Your task to perform on an android device: change keyboard looks Image 0: 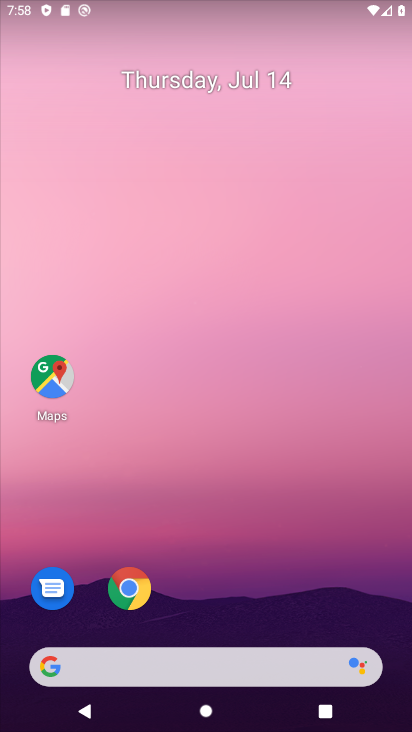
Step 0: drag from (223, 632) to (192, 35)
Your task to perform on an android device: change keyboard looks Image 1: 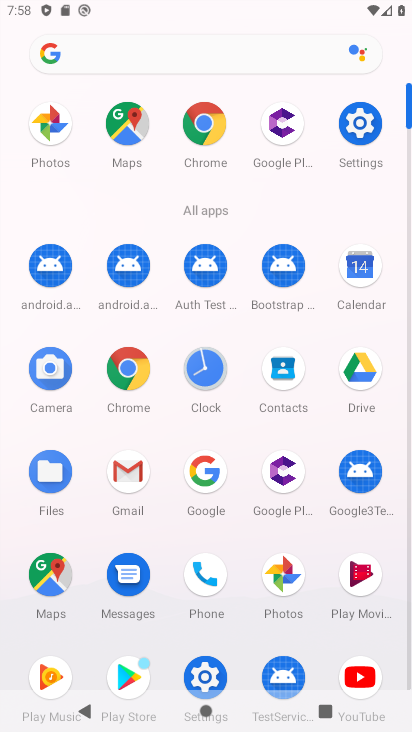
Step 1: click (207, 668)
Your task to perform on an android device: change keyboard looks Image 2: 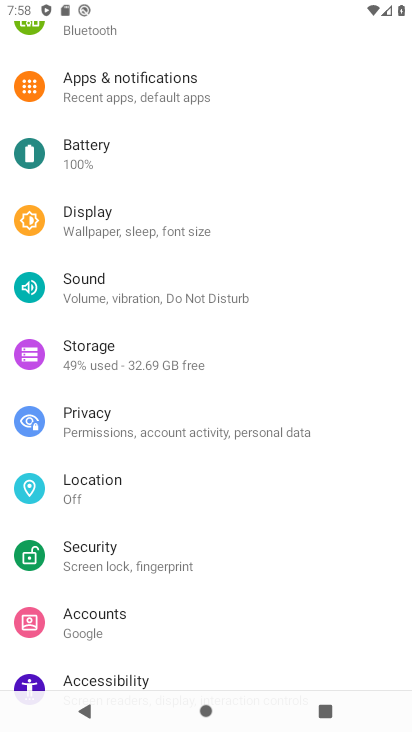
Step 2: drag from (131, 555) to (196, 179)
Your task to perform on an android device: change keyboard looks Image 3: 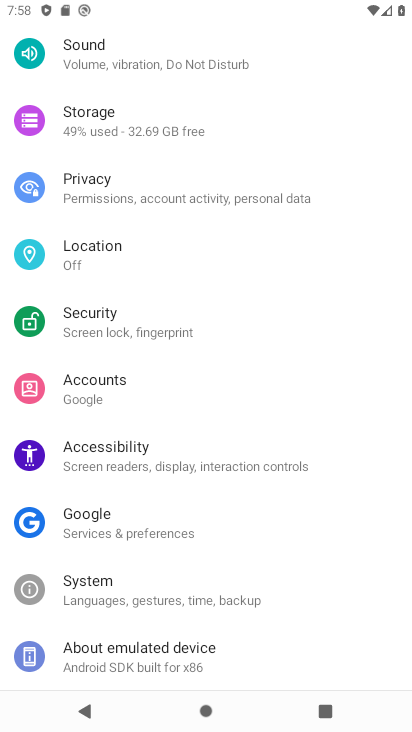
Step 3: click (145, 597)
Your task to perform on an android device: change keyboard looks Image 4: 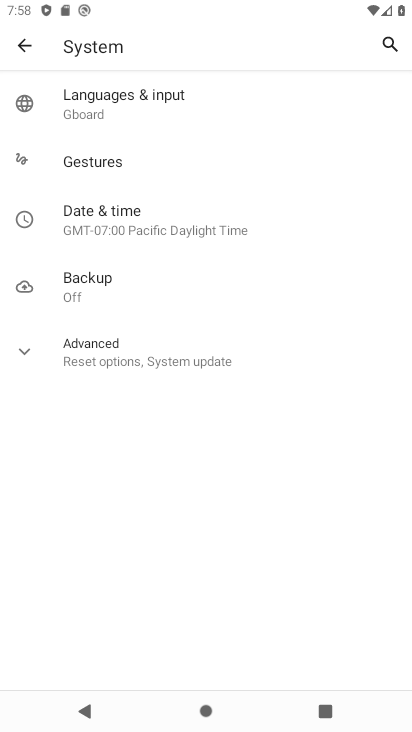
Step 4: click (138, 100)
Your task to perform on an android device: change keyboard looks Image 5: 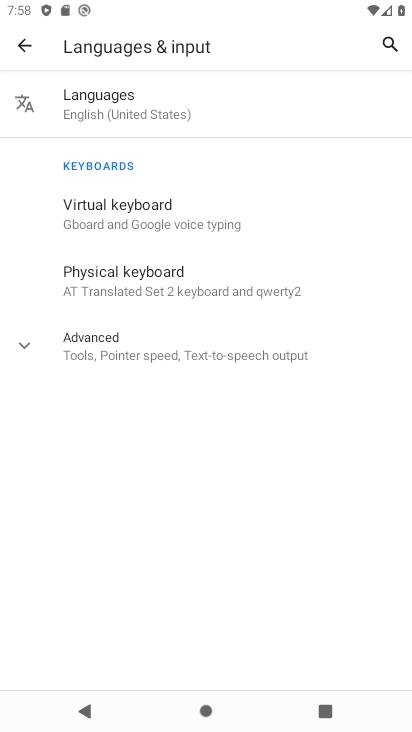
Step 5: click (147, 214)
Your task to perform on an android device: change keyboard looks Image 6: 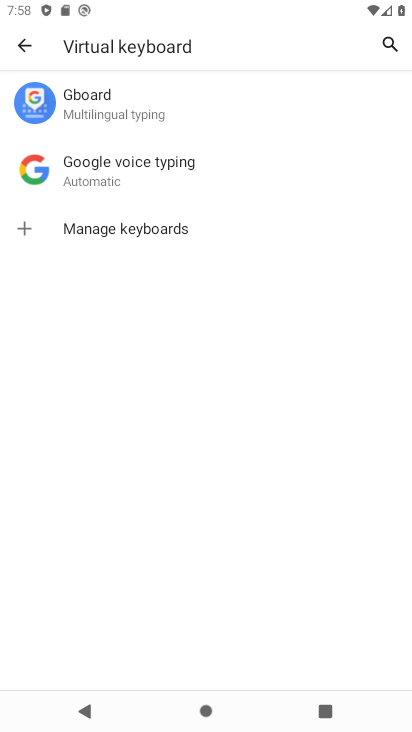
Step 6: click (129, 106)
Your task to perform on an android device: change keyboard looks Image 7: 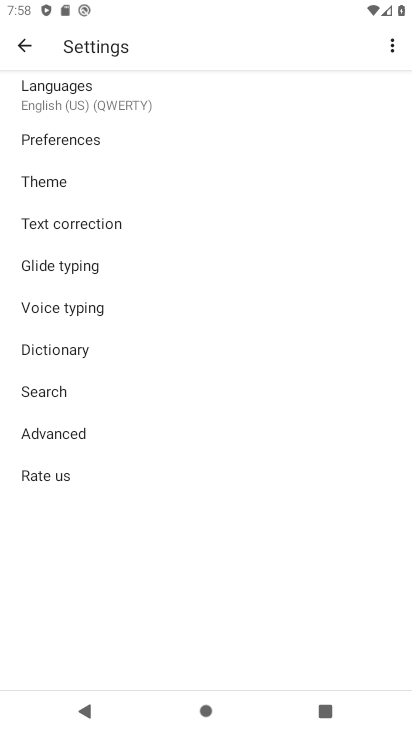
Step 7: click (52, 179)
Your task to perform on an android device: change keyboard looks Image 8: 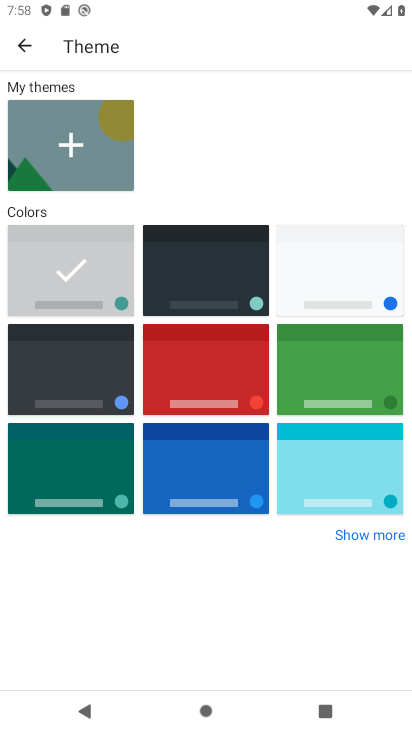
Step 8: click (194, 278)
Your task to perform on an android device: change keyboard looks Image 9: 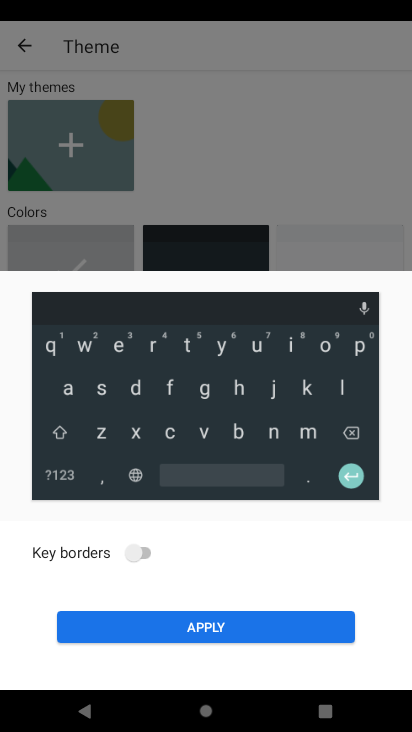
Step 9: click (243, 617)
Your task to perform on an android device: change keyboard looks Image 10: 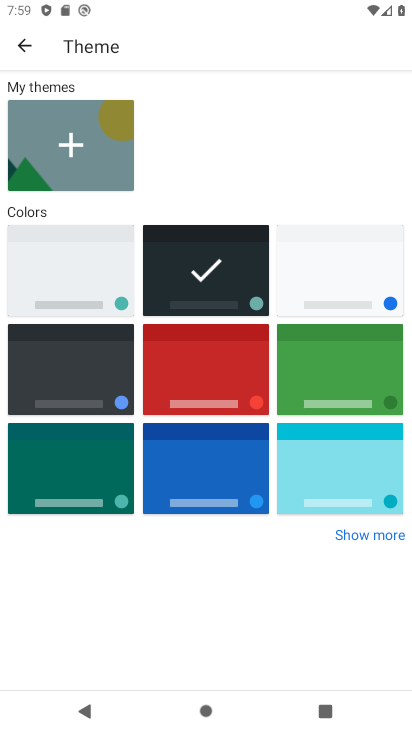
Step 10: task complete